Your task to perform on an android device: What's the news in Chile? Image 0: 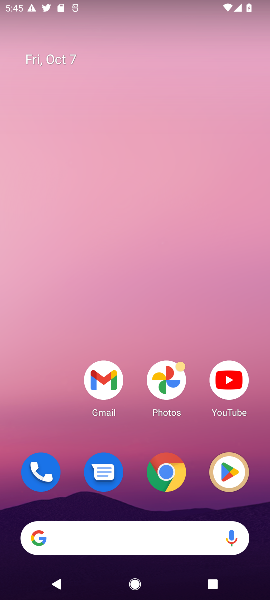
Step 0: click (169, 472)
Your task to perform on an android device: What's the news in Chile? Image 1: 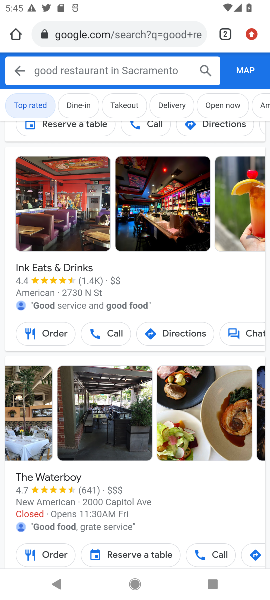
Step 1: click (151, 29)
Your task to perform on an android device: What's the news in Chile? Image 2: 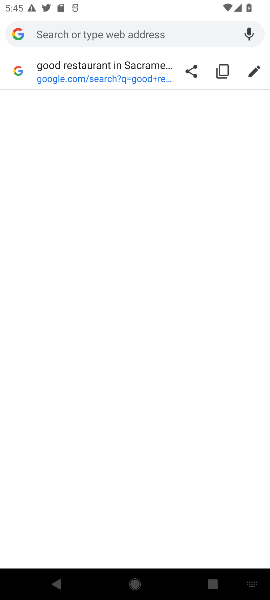
Step 2: type "chile"
Your task to perform on an android device: What's the news in Chile? Image 3: 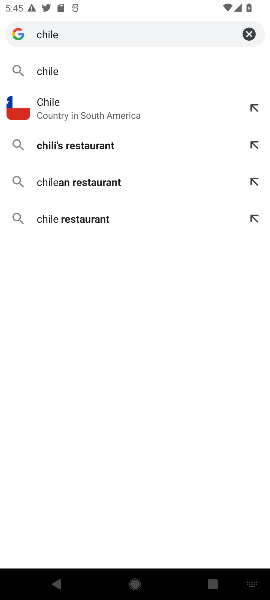
Step 3: click (40, 67)
Your task to perform on an android device: What's the news in Chile? Image 4: 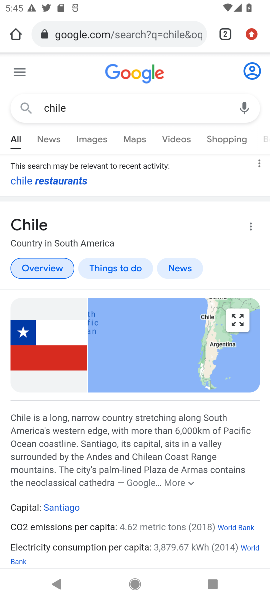
Step 4: click (50, 140)
Your task to perform on an android device: What's the news in Chile? Image 5: 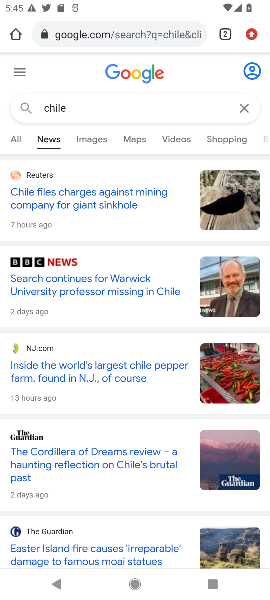
Step 5: task complete